Your task to perform on an android device: Check the weather Image 0: 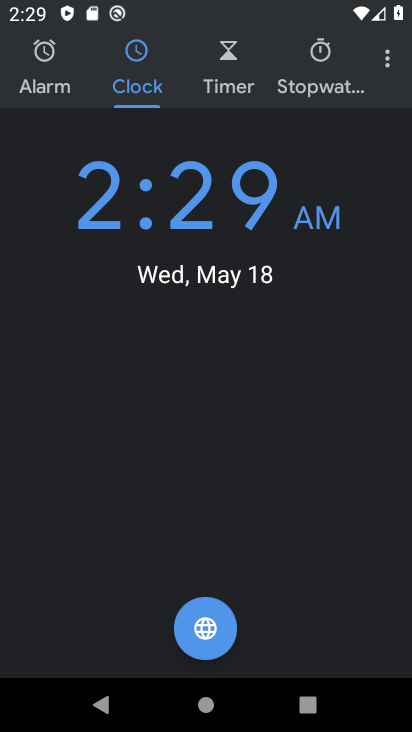
Step 0: press home button
Your task to perform on an android device: Check the weather Image 1: 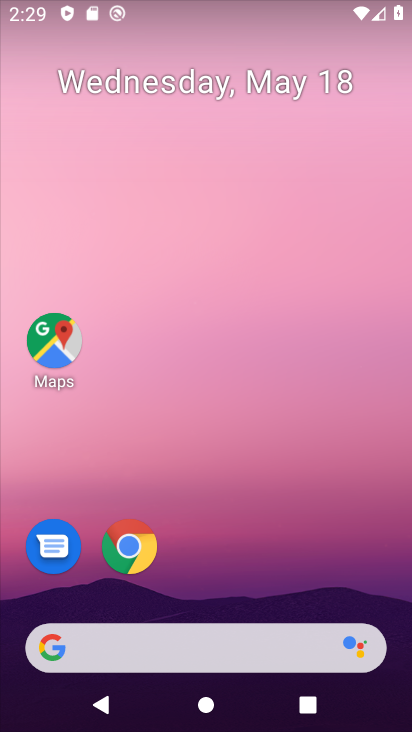
Step 1: drag from (237, 660) to (239, 86)
Your task to perform on an android device: Check the weather Image 2: 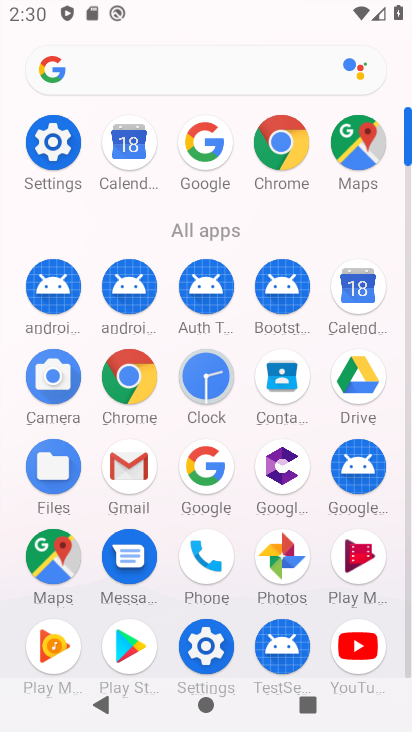
Step 2: click (206, 467)
Your task to perform on an android device: Check the weather Image 3: 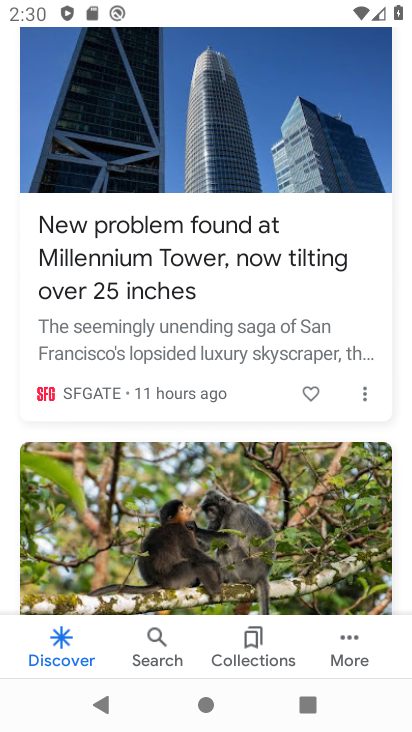
Step 3: drag from (207, 193) to (209, 620)
Your task to perform on an android device: Check the weather Image 4: 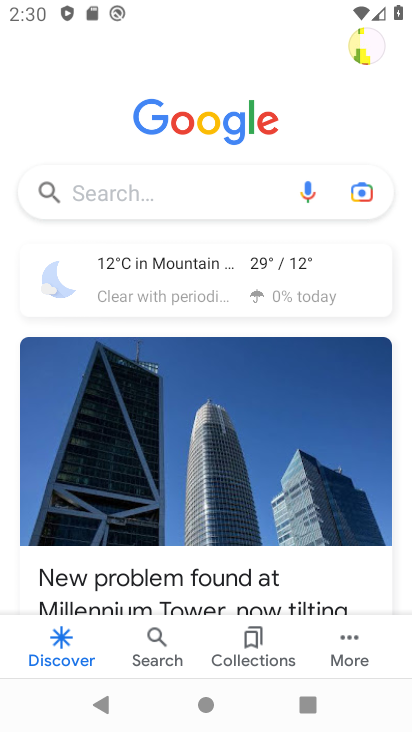
Step 4: click (166, 266)
Your task to perform on an android device: Check the weather Image 5: 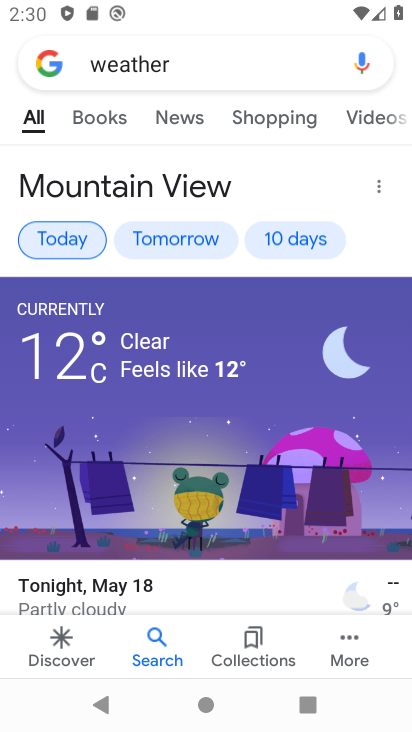
Step 5: click (66, 237)
Your task to perform on an android device: Check the weather Image 6: 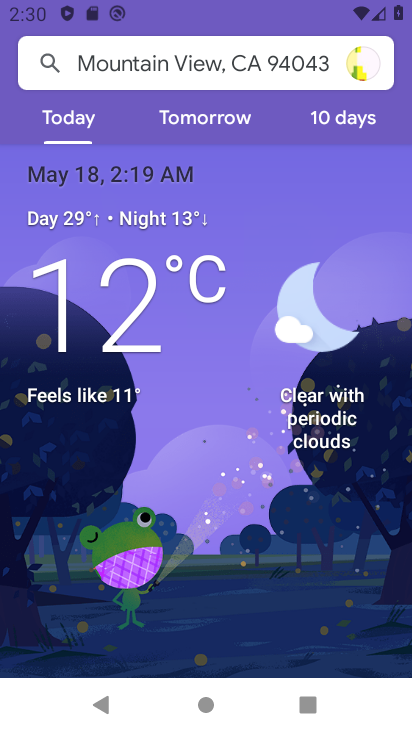
Step 6: task complete